Your task to perform on an android device: Go to Yahoo.com Image 0: 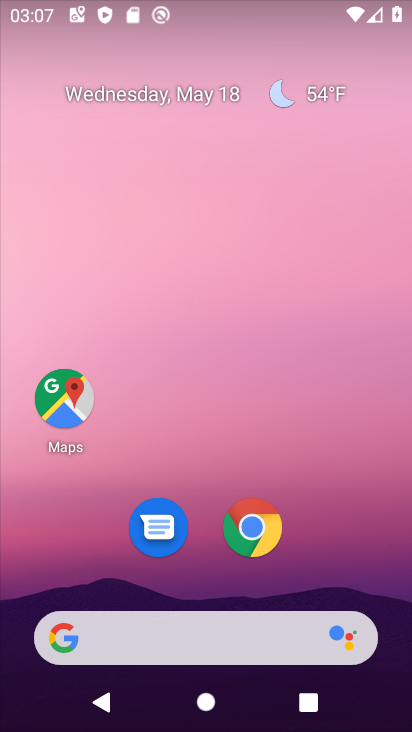
Step 0: drag from (209, 612) to (304, 38)
Your task to perform on an android device: Go to Yahoo.com Image 1: 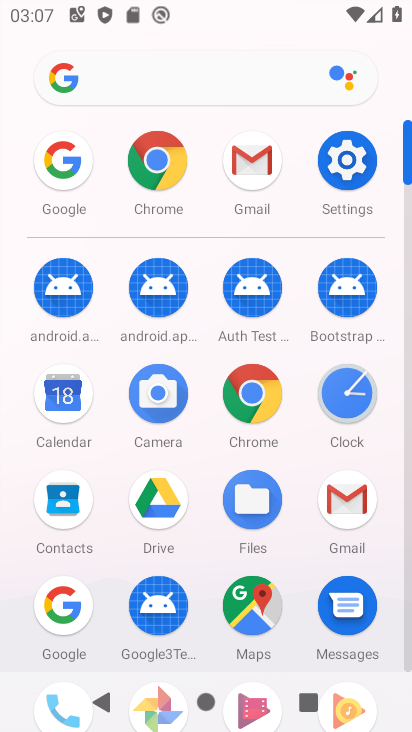
Step 1: click (267, 400)
Your task to perform on an android device: Go to Yahoo.com Image 2: 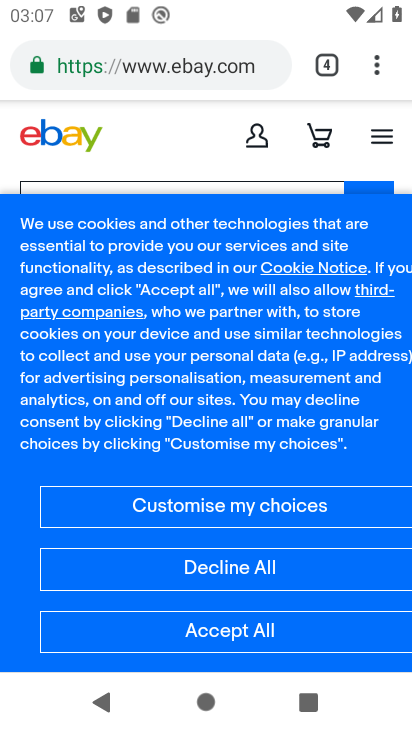
Step 2: click (337, 65)
Your task to perform on an android device: Go to Yahoo.com Image 3: 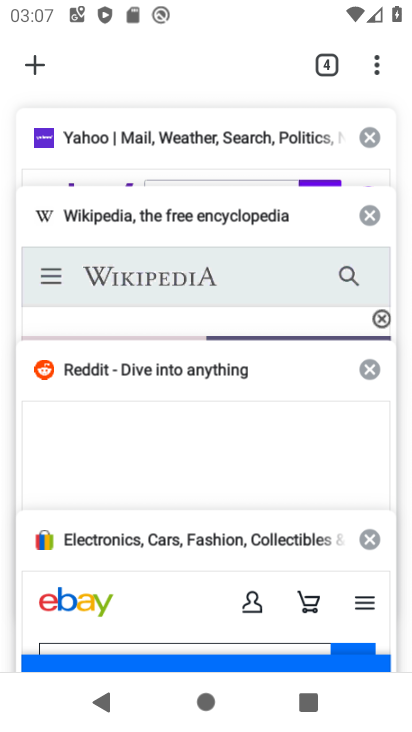
Step 3: click (101, 134)
Your task to perform on an android device: Go to Yahoo.com Image 4: 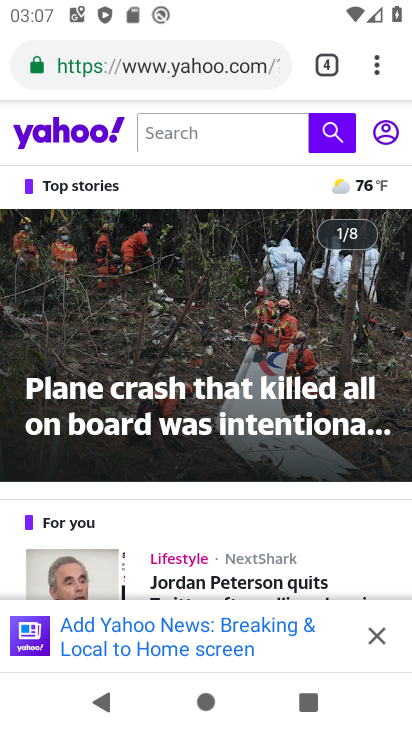
Step 4: task complete